Your task to perform on an android device: Toggle the flashlight Image 0: 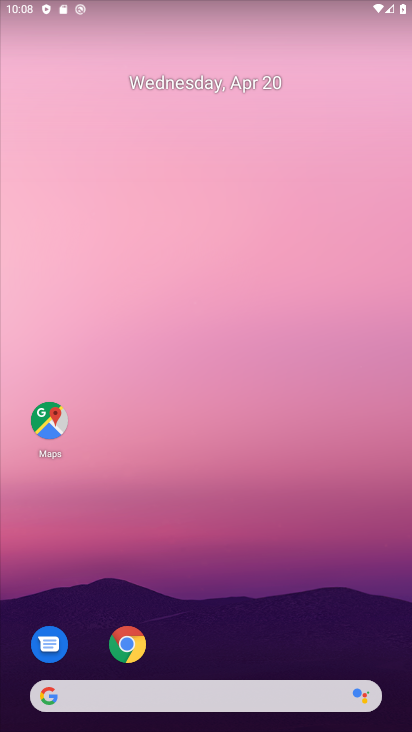
Step 0: task impossible